Your task to perform on an android device: Turn on the flashlight Image 0: 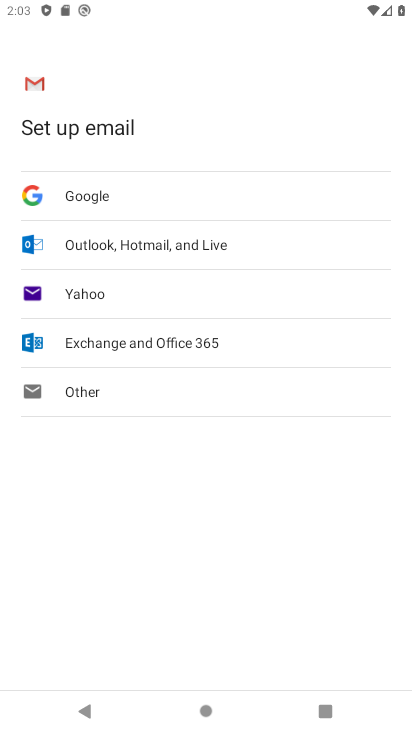
Step 0: press home button
Your task to perform on an android device: Turn on the flashlight Image 1: 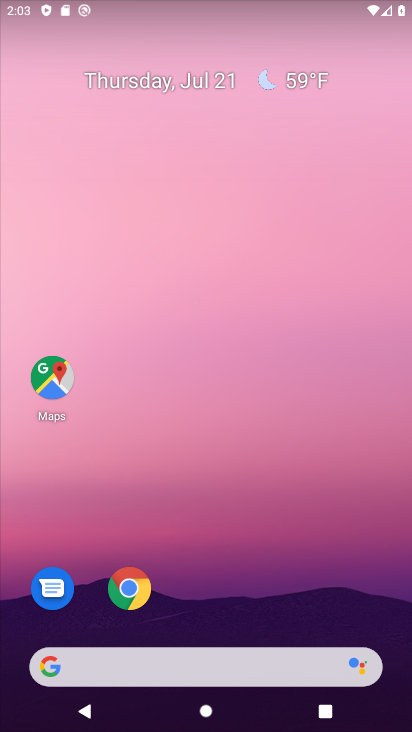
Step 1: click (359, 163)
Your task to perform on an android device: Turn on the flashlight Image 2: 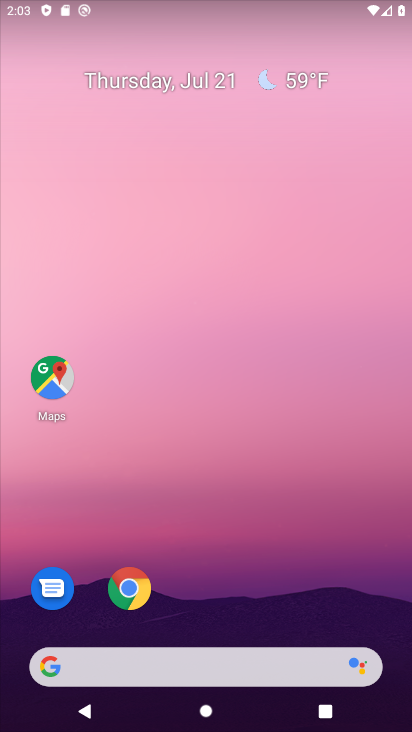
Step 2: drag from (369, 588) to (321, 95)
Your task to perform on an android device: Turn on the flashlight Image 3: 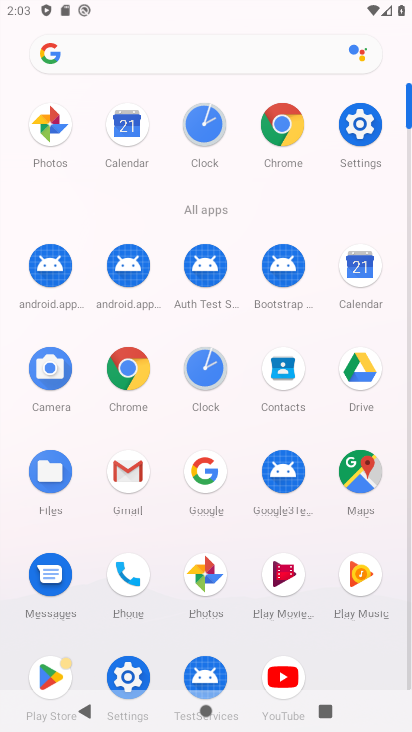
Step 3: click (356, 126)
Your task to perform on an android device: Turn on the flashlight Image 4: 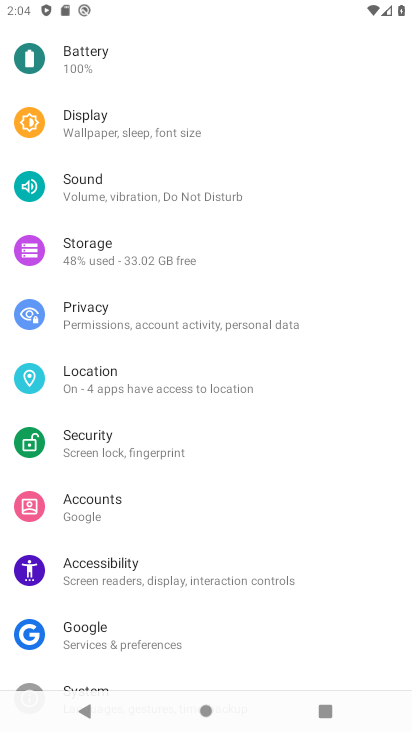
Step 4: drag from (304, 231) to (300, 547)
Your task to perform on an android device: Turn on the flashlight Image 5: 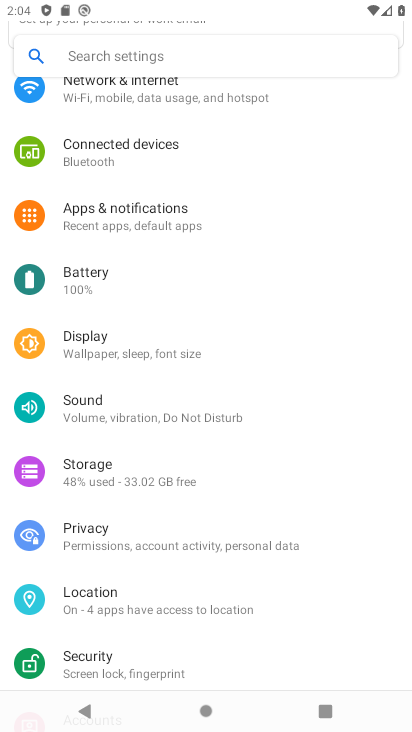
Step 5: drag from (302, 192) to (296, 538)
Your task to perform on an android device: Turn on the flashlight Image 6: 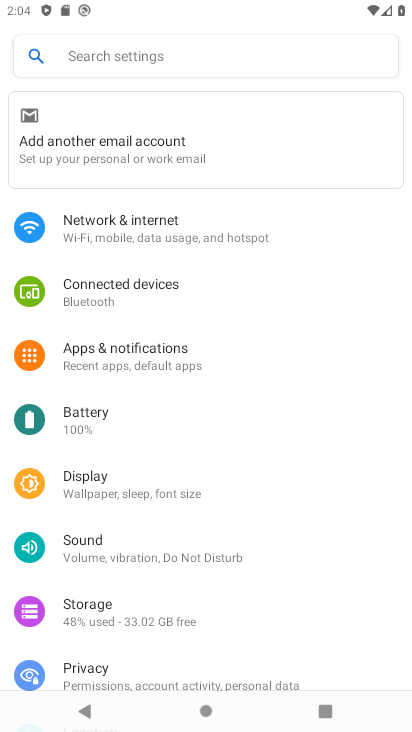
Step 6: click (96, 485)
Your task to perform on an android device: Turn on the flashlight Image 7: 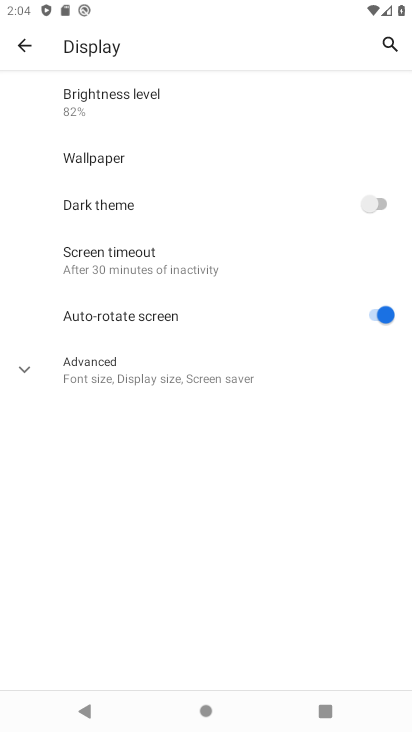
Step 7: task complete